Your task to perform on an android device: open a bookmark in the chrome app Image 0: 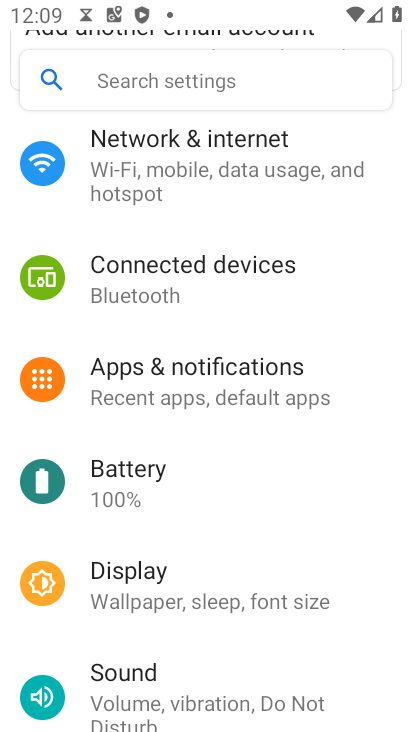
Step 0: press home button
Your task to perform on an android device: open a bookmark in the chrome app Image 1: 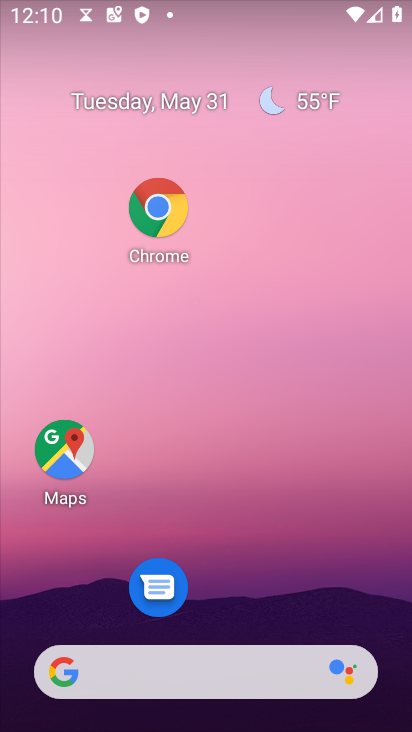
Step 1: click (162, 202)
Your task to perform on an android device: open a bookmark in the chrome app Image 2: 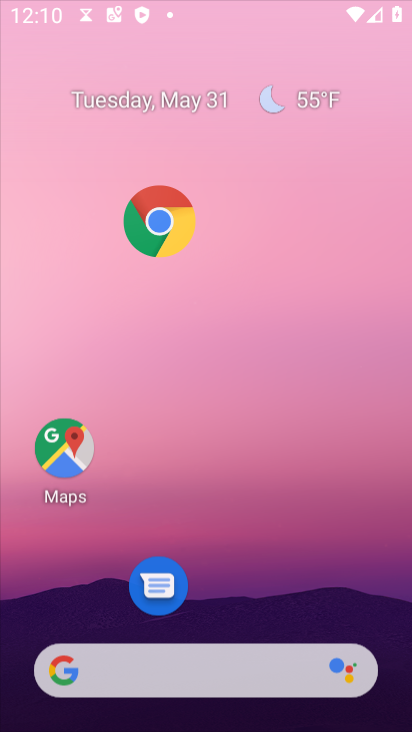
Step 2: click (162, 202)
Your task to perform on an android device: open a bookmark in the chrome app Image 3: 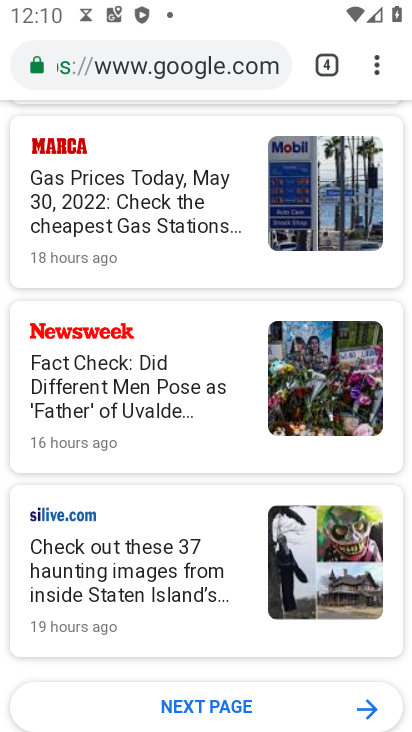
Step 3: click (377, 61)
Your task to perform on an android device: open a bookmark in the chrome app Image 4: 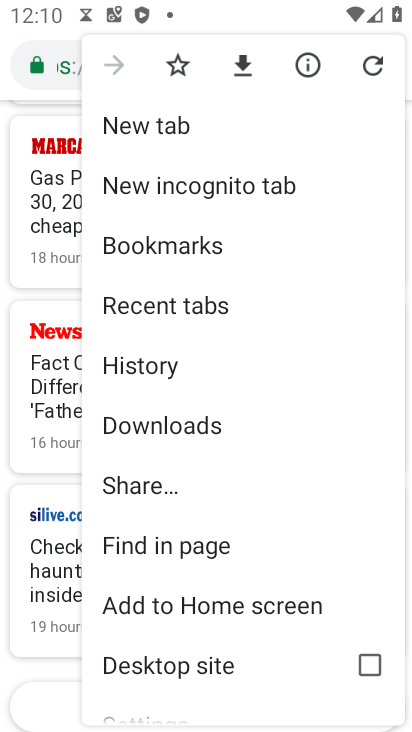
Step 4: click (202, 244)
Your task to perform on an android device: open a bookmark in the chrome app Image 5: 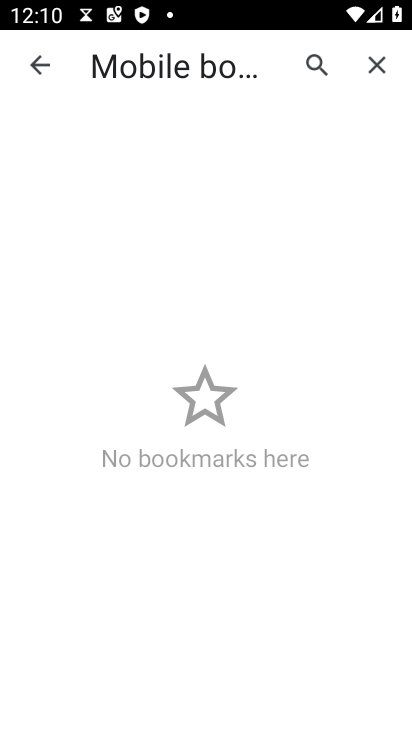
Step 5: task complete